Your task to perform on an android device: delete the emails in spam in the gmail app Image 0: 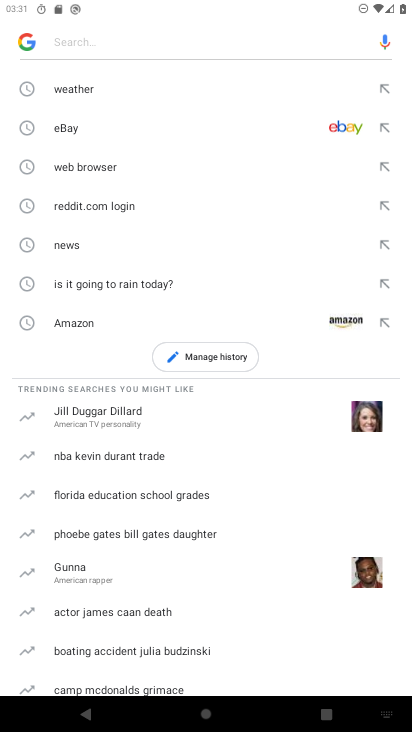
Step 0: press home button
Your task to perform on an android device: delete the emails in spam in the gmail app Image 1: 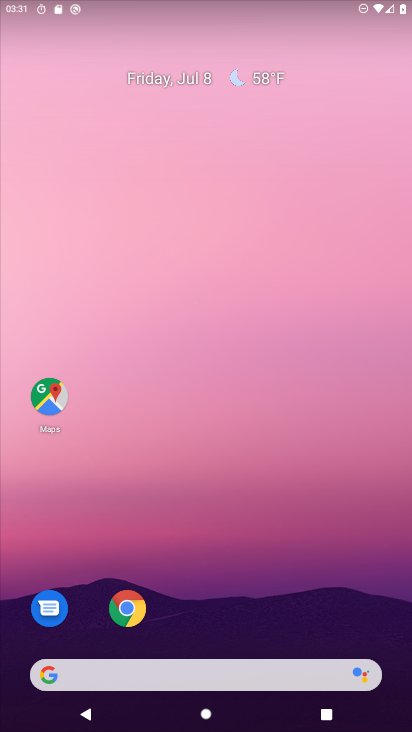
Step 1: drag from (248, 718) to (256, 96)
Your task to perform on an android device: delete the emails in spam in the gmail app Image 2: 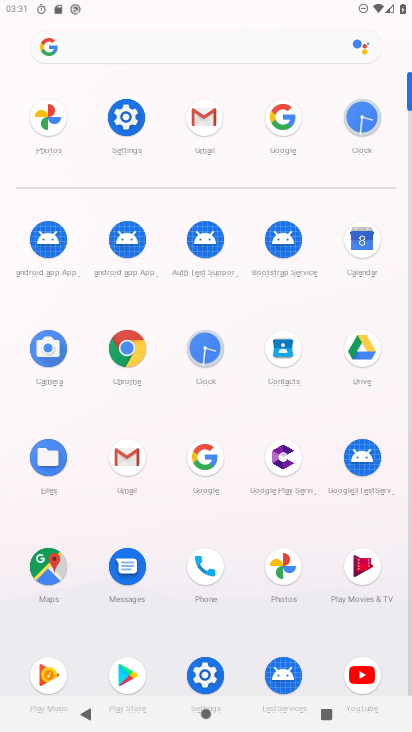
Step 2: click (200, 123)
Your task to perform on an android device: delete the emails in spam in the gmail app Image 3: 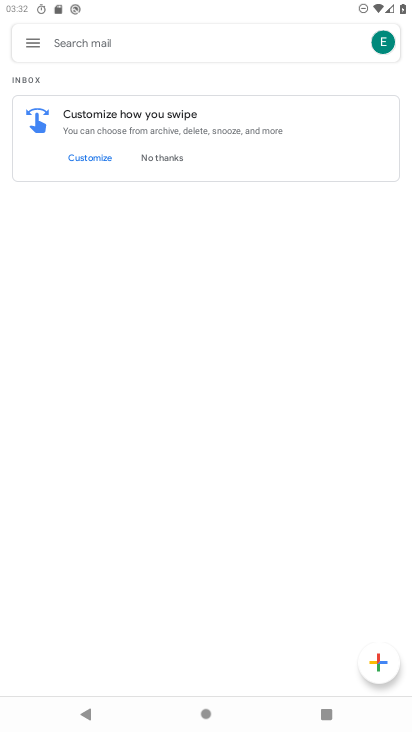
Step 3: click (25, 41)
Your task to perform on an android device: delete the emails in spam in the gmail app Image 4: 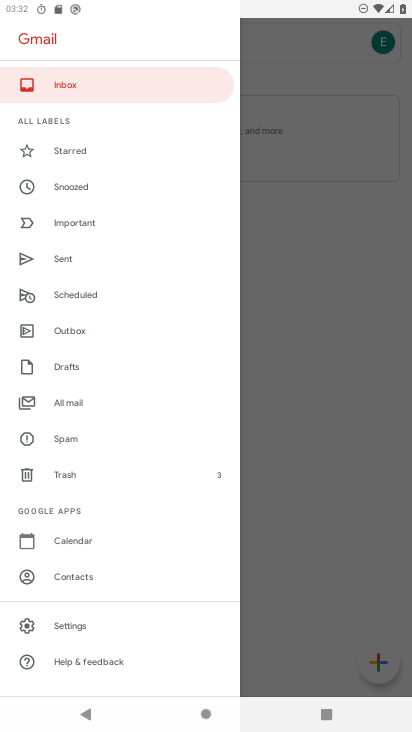
Step 4: click (64, 436)
Your task to perform on an android device: delete the emails in spam in the gmail app Image 5: 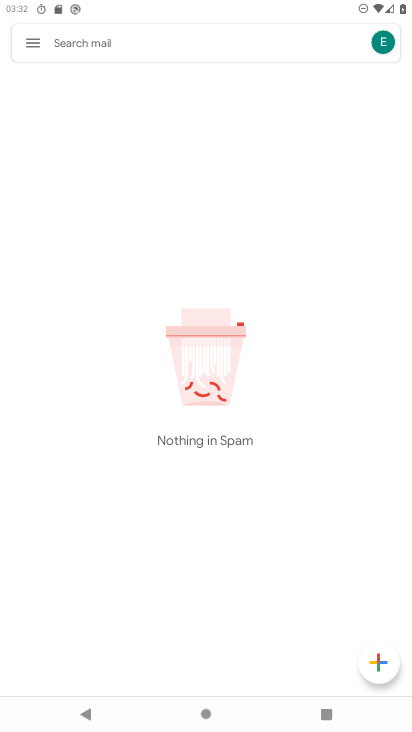
Step 5: task complete